Your task to perform on an android device: Open my contact list Image 0: 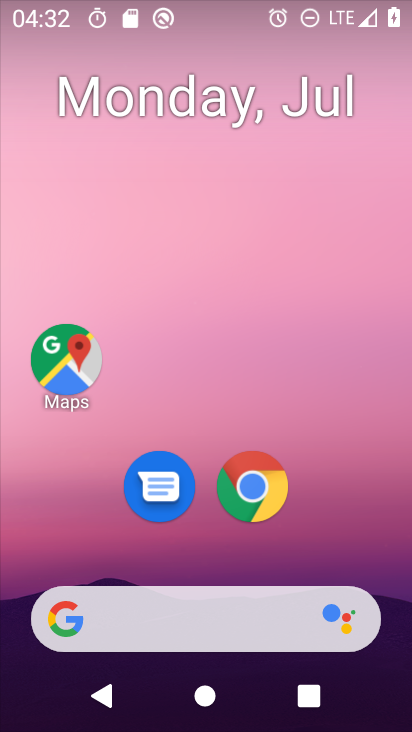
Step 0: drag from (181, 465) to (227, 10)
Your task to perform on an android device: Open my contact list Image 1: 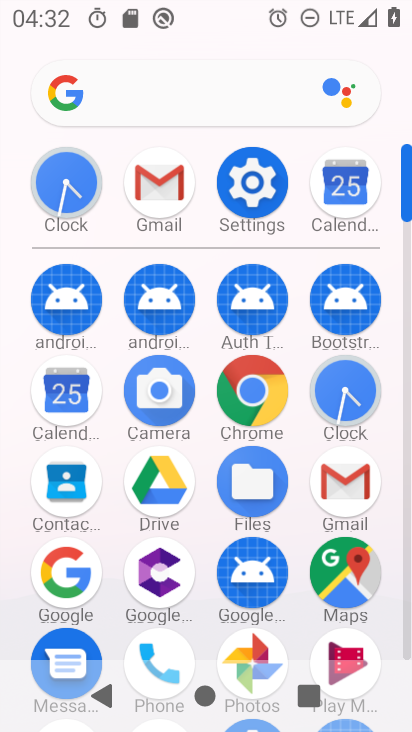
Step 1: click (73, 491)
Your task to perform on an android device: Open my contact list Image 2: 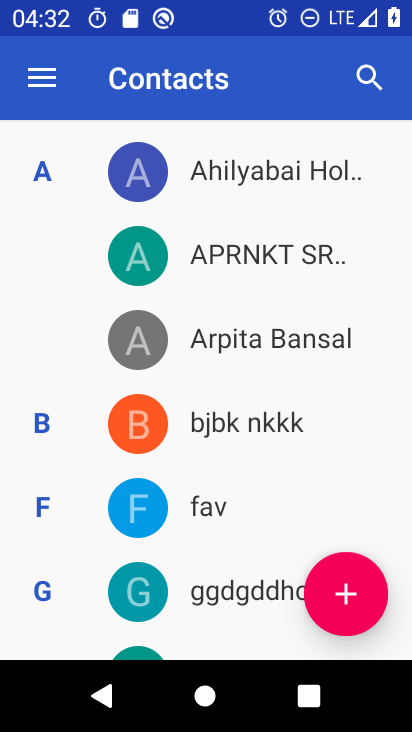
Step 2: task complete